Your task to perform on an android device: Search for Italian restaurants on Maps Image 0: 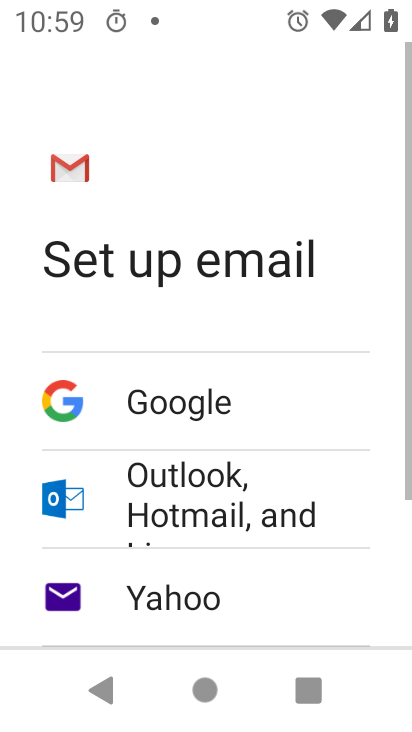
Step 0: press home button
Your task to perform on an android device: Search for Italian restaurants on Maps Image 1: 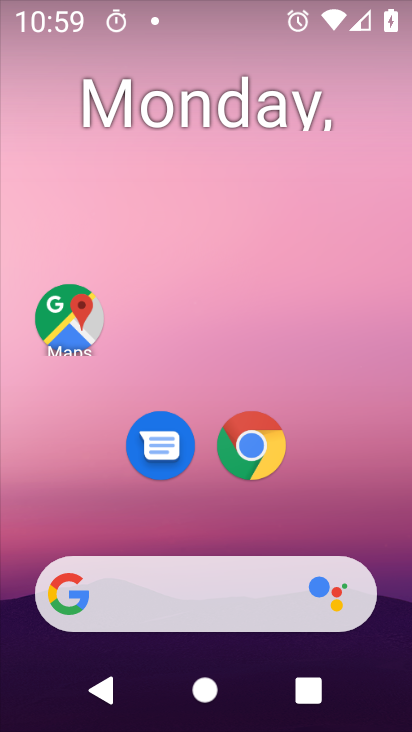
Step 1: drag from (303, 483) to (231, 84)
Your task to perform on an android device: Search for Italian restaurants on Maps Image 2: 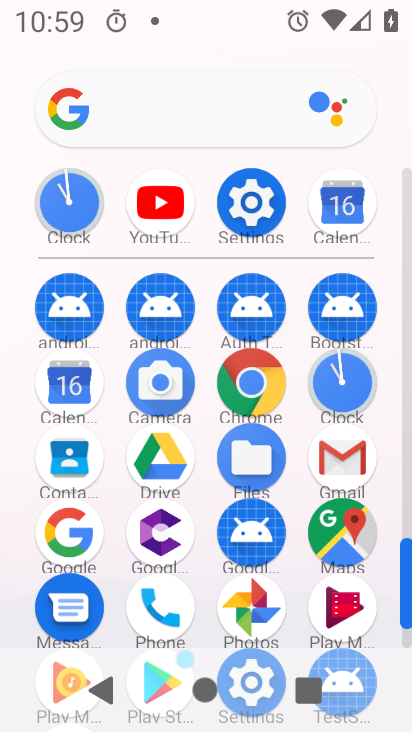
Step 2: click (353, 548)
Your task to perform on an android device: Search for Italian restaurants on Maps Image 3: 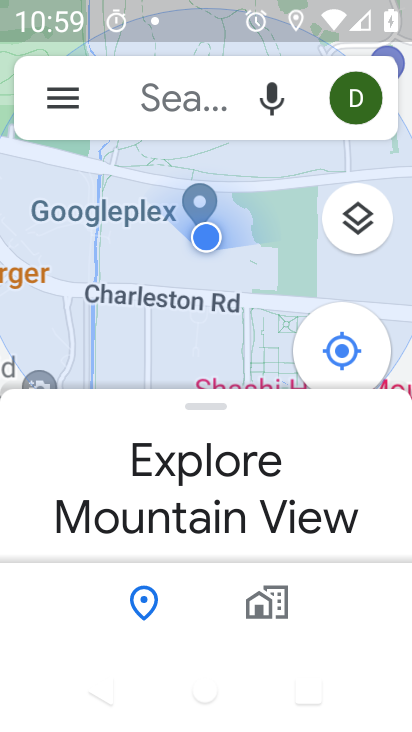
Step 3: click (171, 101)
Your task to perform on an android device: Search for Italian restaurants on Maps Image 4: 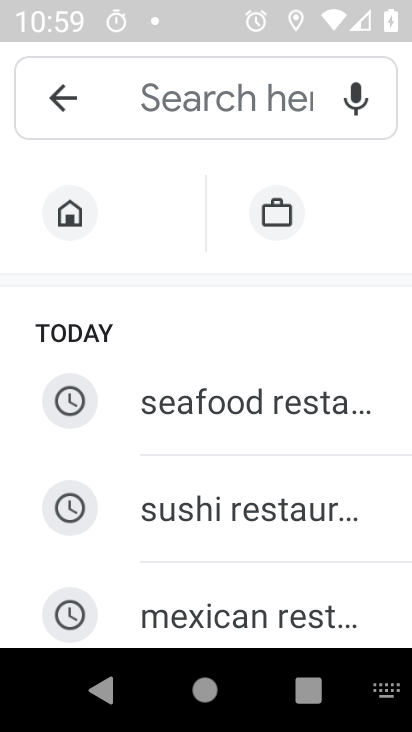
Step 4: drag from (172, 600) to (151, 298)
Your task to perform on an android device: Search for Italian restaurants on Maps Image 5: 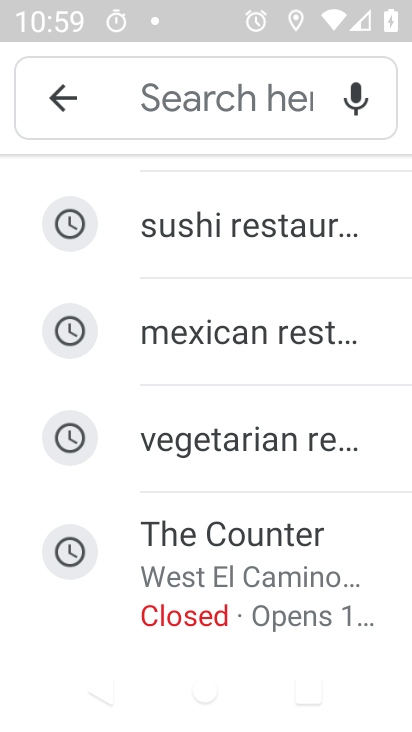
Step 5: drag from (127, 617) to (109, 307)
Your task to perform on an android device: Search for Italian restaurants on Maps Image 6: 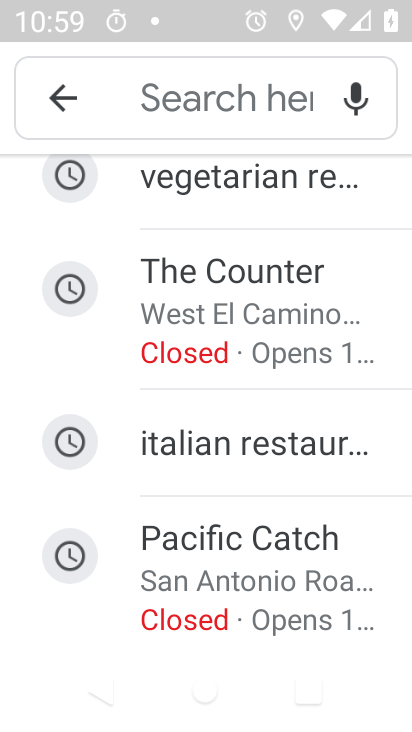
Step 6: click (129, 449)
Your task to perform on an android device: Search for Italian restaurants on Maps Image 7: 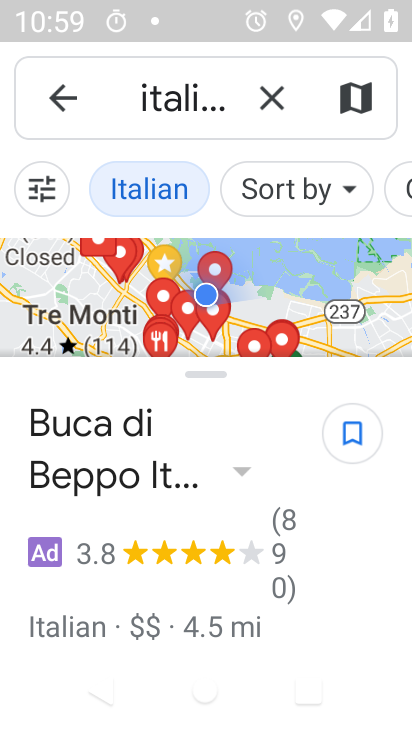
Step 7: task complete